Your task to perform on an android device: Open Yahoo.com Image 0: 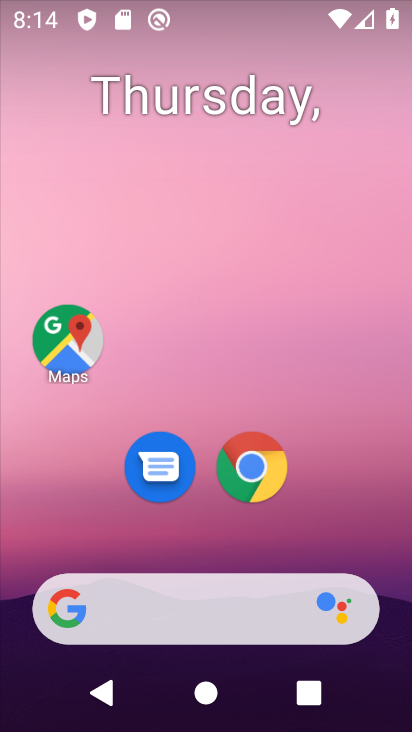
Step 0: drag from (348, 522) to (214, 49)
Your task to perform on an android device: Open Yahoo.com Image 1: 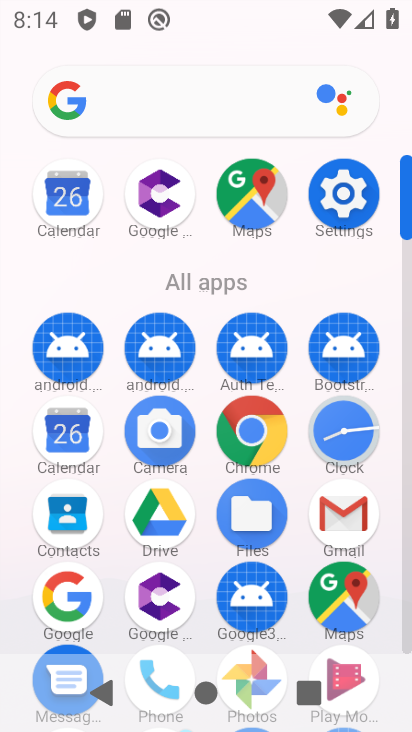
Step 1: click (260, 435)
Your task to perform on an android device: Open Yahoo.com Image 2: 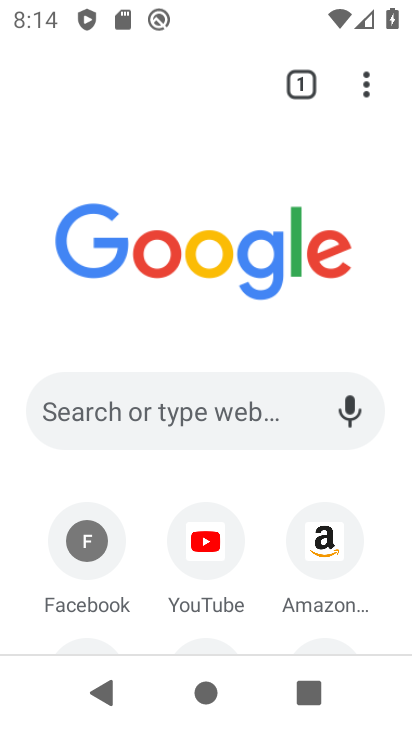
Step 2: click (371, 86)
Your task to perform on an android device: Open Yahoo.com Image 3: 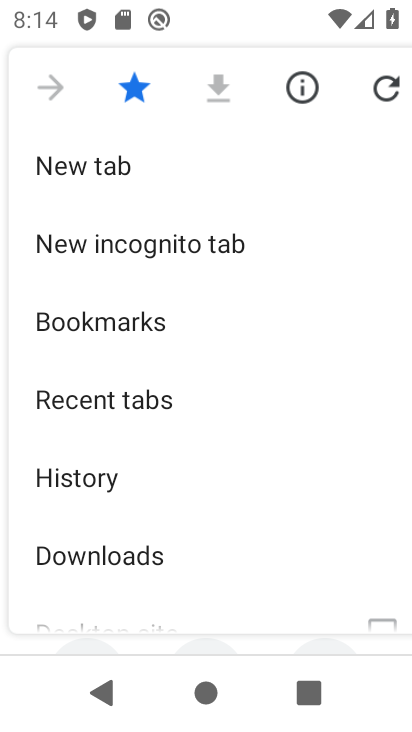
Step 3: click (93, 169)
Your task to perform on an android device: Open Yahoo.com Image 4: 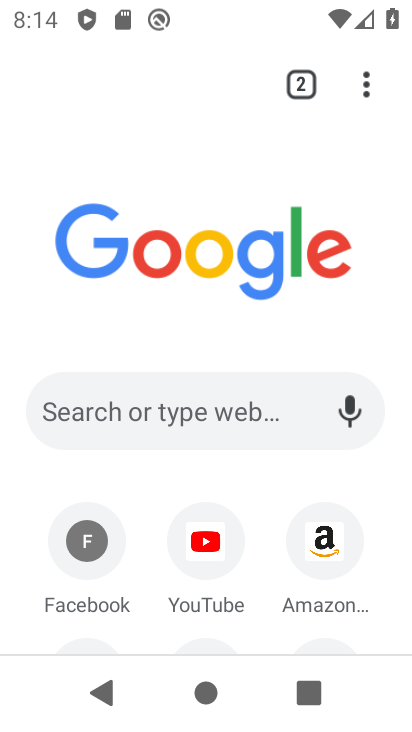
Step 4: drag from (257, 513) to (265, 213)
Your task to perform on an android device: Open Yahoo.com Image 5: 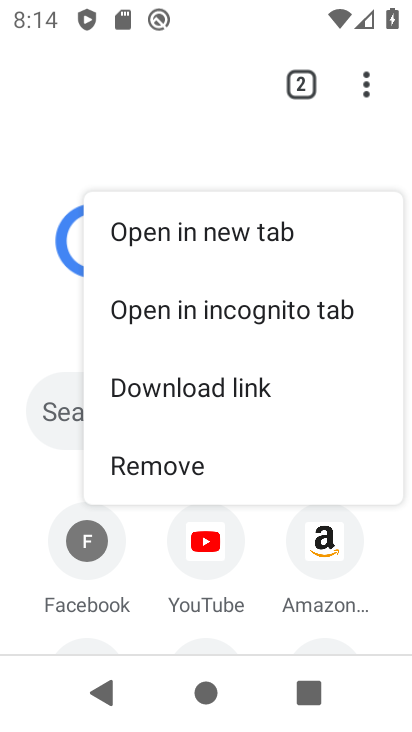
Step 5: click (16, 303)
Your task to perform on an android device: Open Yahoo.com Image 6: 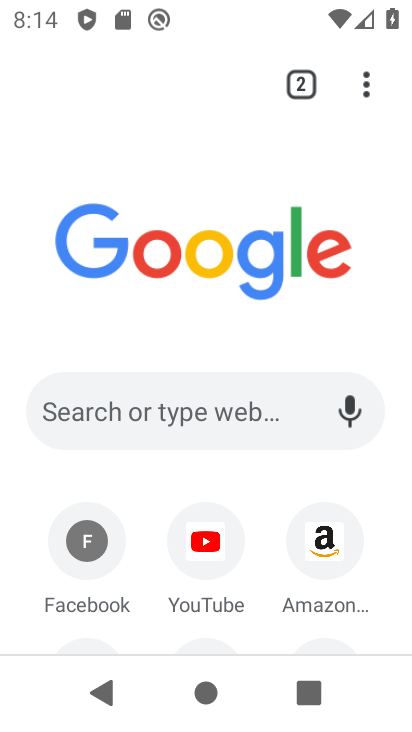
Step 6: drag from (276, 486) to (207, 130)
Your task to perform on an android device: Open Yahoo.com Image 7: 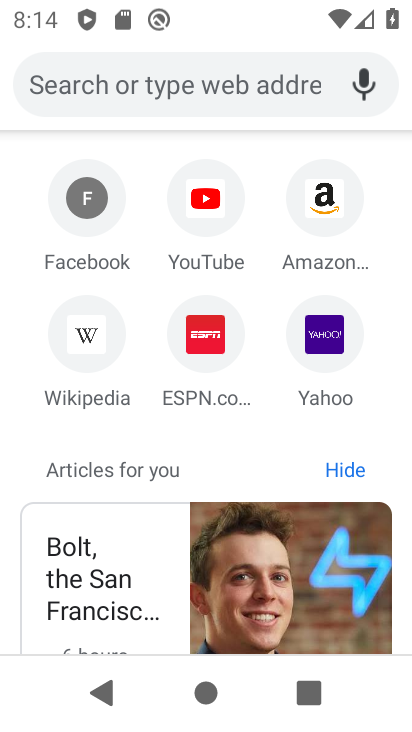
Step 7: click (329, 331)
Your task to perform on an android device: Open Yahoo.com Image 8: 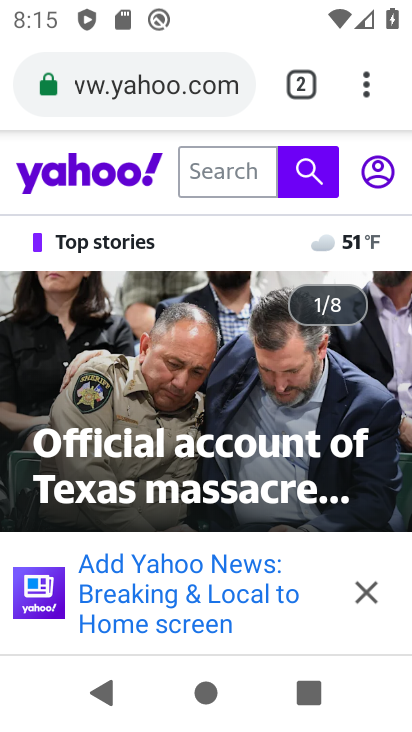
Step 8: task complete